Your task to perform on an android device: open app "Firefox Browser" Image 0: 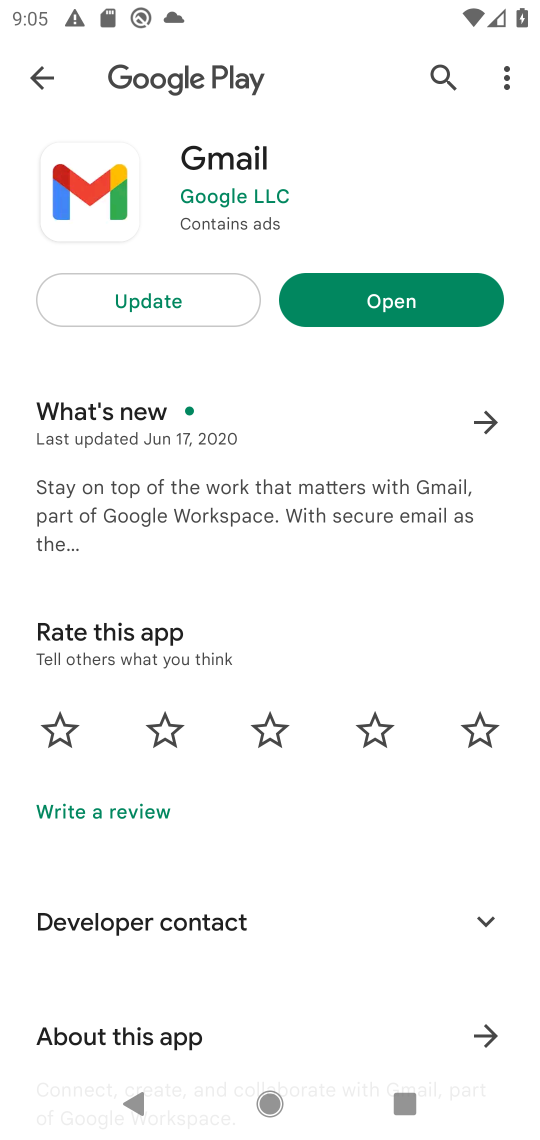
Step 0: press home button
Your task to perform on an android device: open app "Firefox Browser" Image 1: 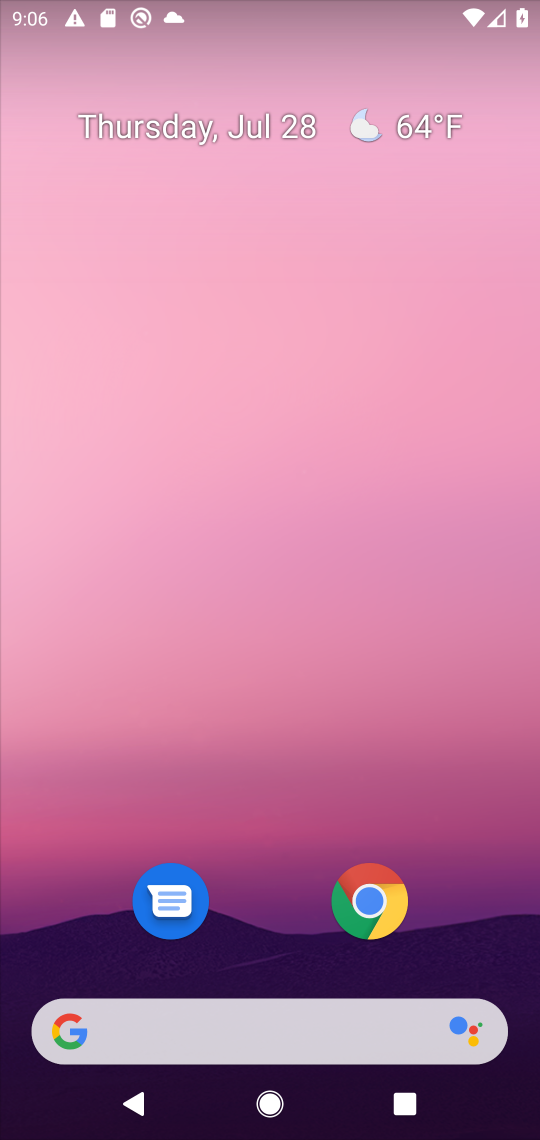
Step 1: task complete